Your task to perform on an android device: Open Google Maps and go to "Timeline" Image 0: 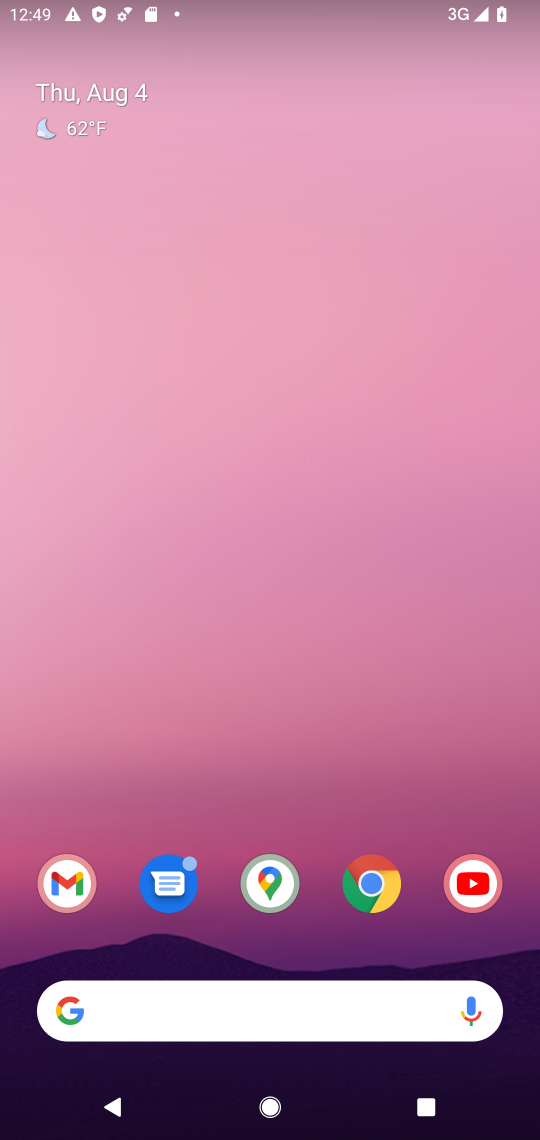
Step 0: drag from (193, 886) to (195, 499)
Your task to perform on an android device: Open Google Maps and go to "Timeline" Image 1: 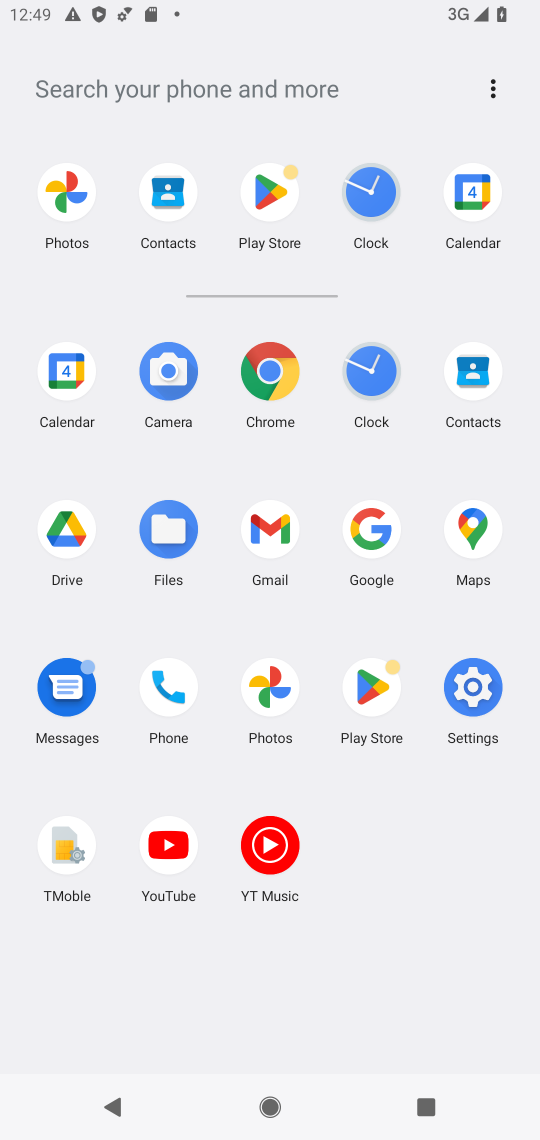
Step 1: drag from (226, 1008) to (238, 544)
Your task to perform on an android device: Open Google Maps and go to "Timeline" Image 2: 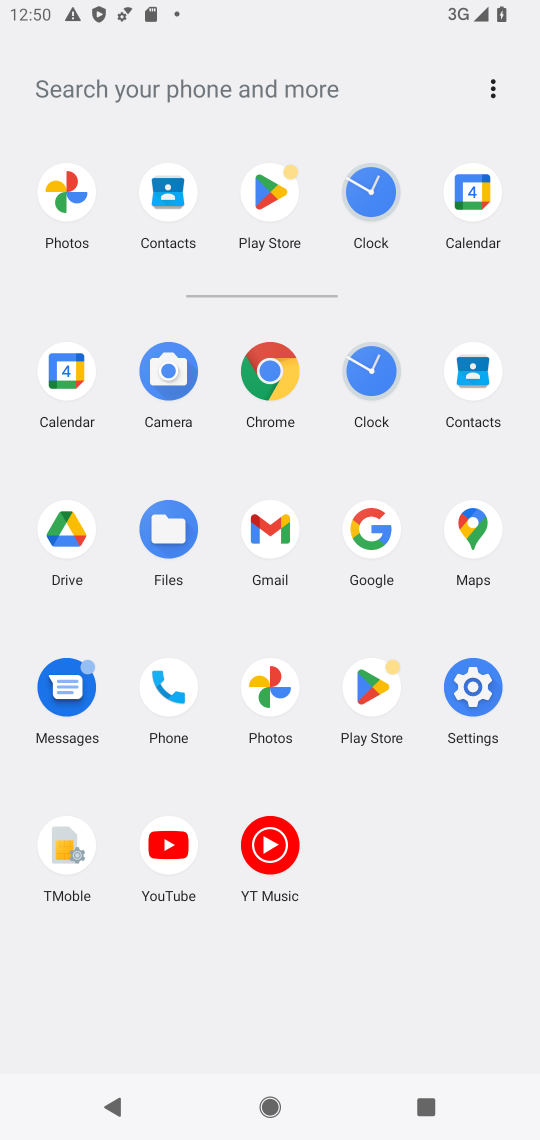
Step 2: click (454, 560)
Your task to perform on an android device: Open Google Maps and go to "Timeline" Image 3: 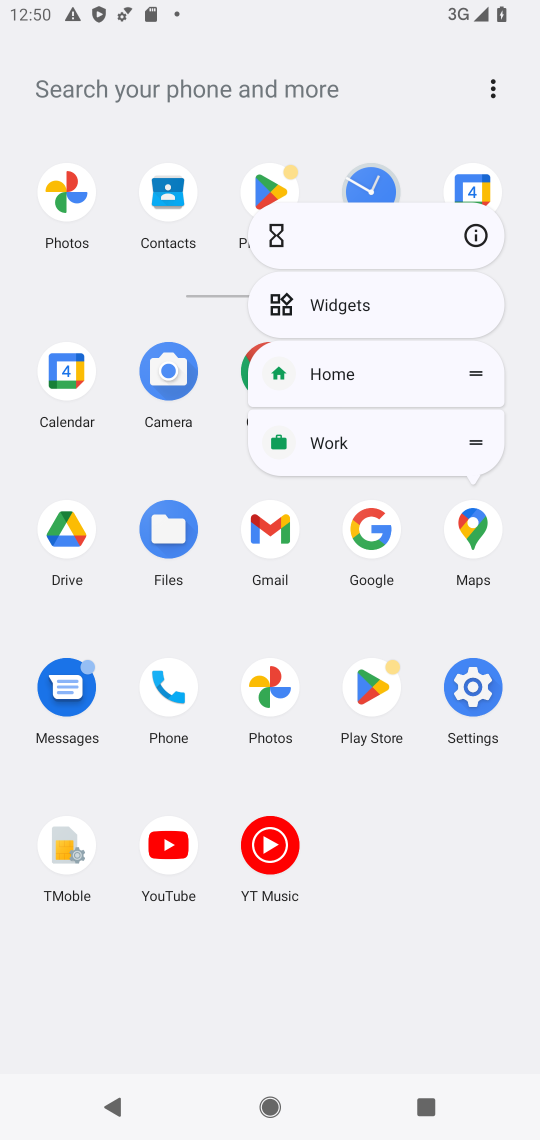
Step 3: click (493, 238)
Your task to perform on an android device: Open Google Maps and go to "Timeline" Image 4: 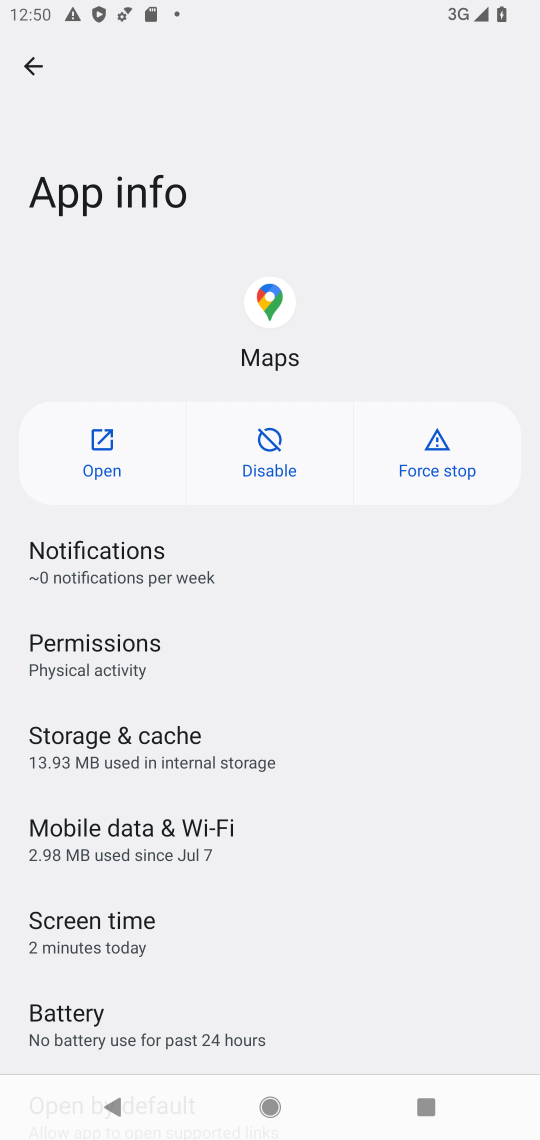
Step 4: click (83, 444)
Your task to perform on an android device: Open Google Maps and go to "Timeline" Image 5: 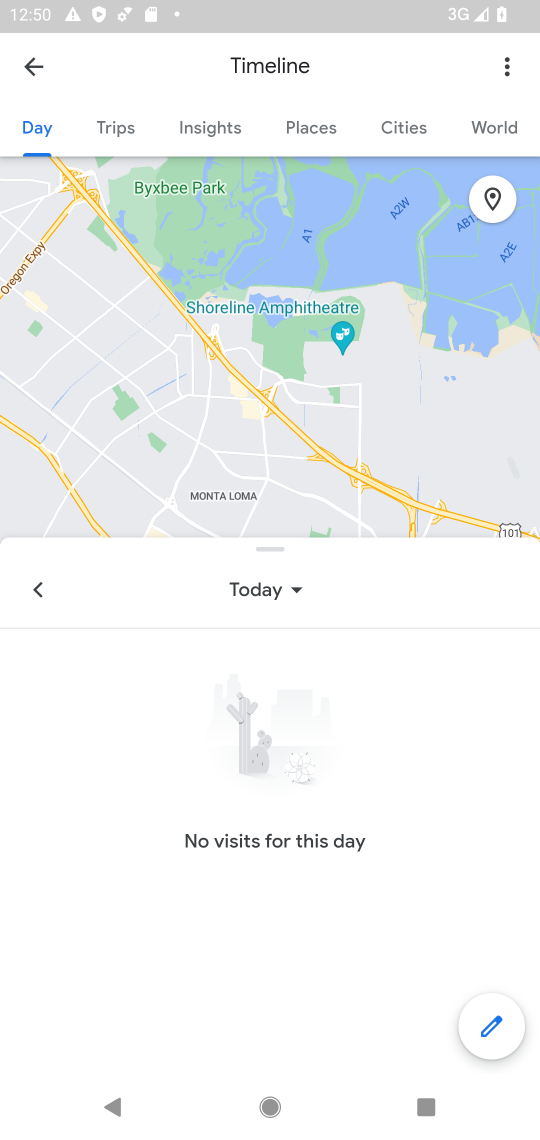
Step 5: task complete